Your task to perform on an android device: Toggle the flashlight Image 0: 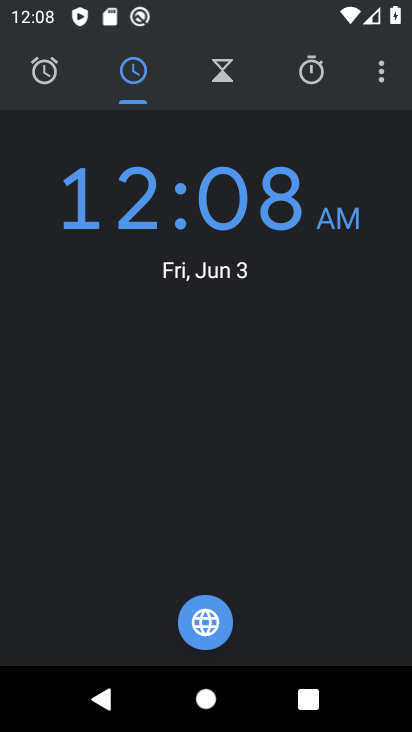
Step 0: press home button
Your task to perform on an android device: Toggle the flashlight Image 1: 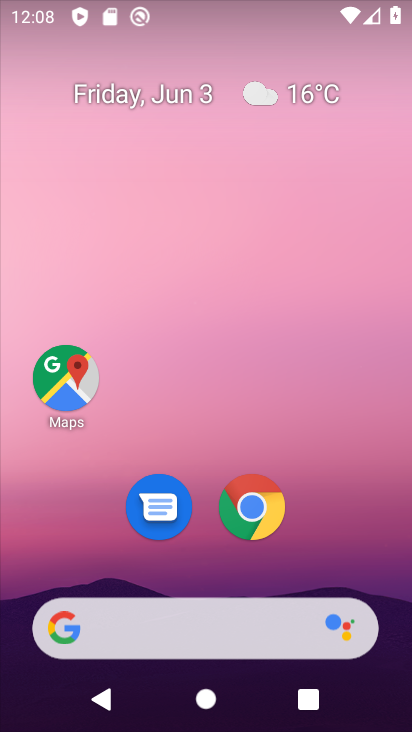
Step 1: drag from (215, 573) to (217, 14)
Your task to perform on an android device: Toggle the flashlight Image 2: 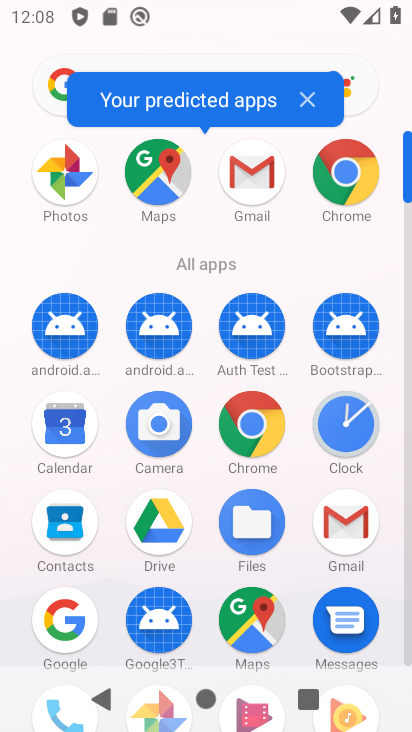
Step 2: drag from (123, 572) to (131, 124)
Your task to perform on an android device: Toggle the flashlight Image 3: 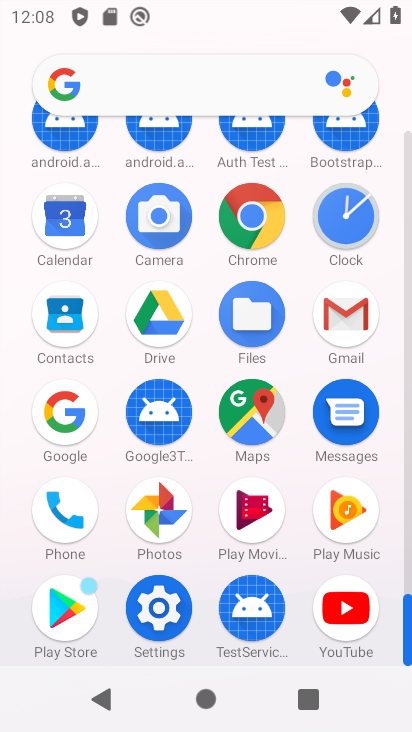
Step 3: click (160, 606)
Your task to perform on an android device: Toggle the flashlight Image 4: 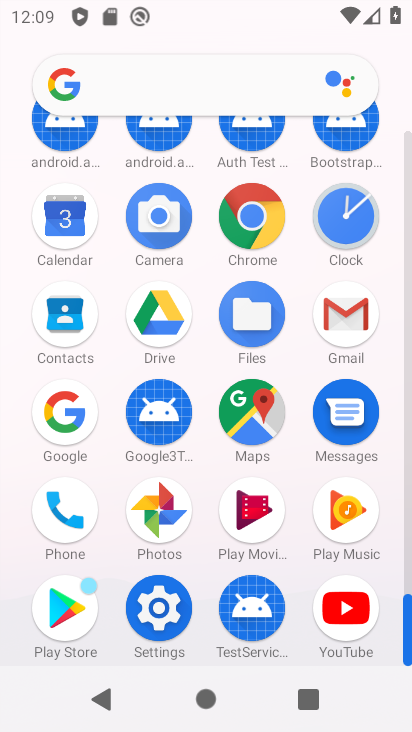
Step 4: click (156, 620)
Your task to perform on an android device: Toggle the flashlight Image 5: 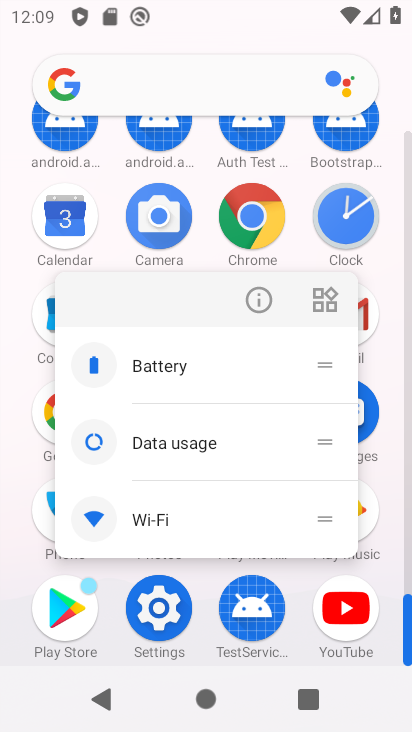
Step 5: click (173, 613)
Your task to perform on an android device: Toggle the flashlight Image 6: 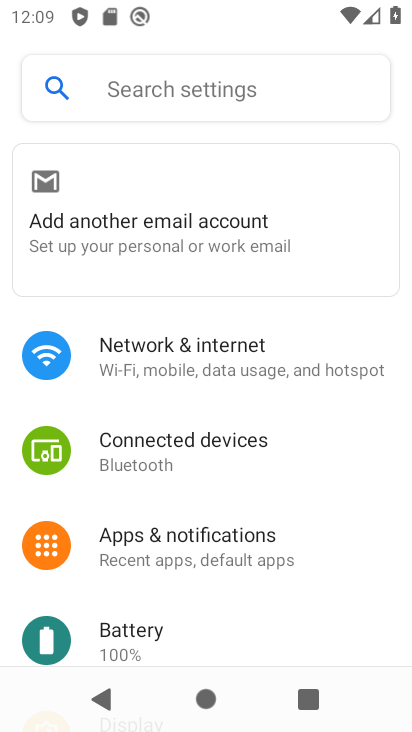
Step 6: task complete